Your task to perform on an android device: Go to accessibility settings Image 0: 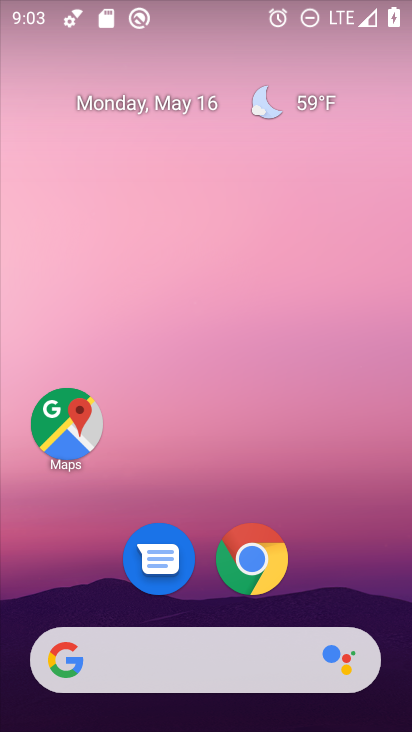
Step 0: drag from (335, 576) to (344, 89)
Your task to perform on an android device: Go to accessibility settings Image 1: 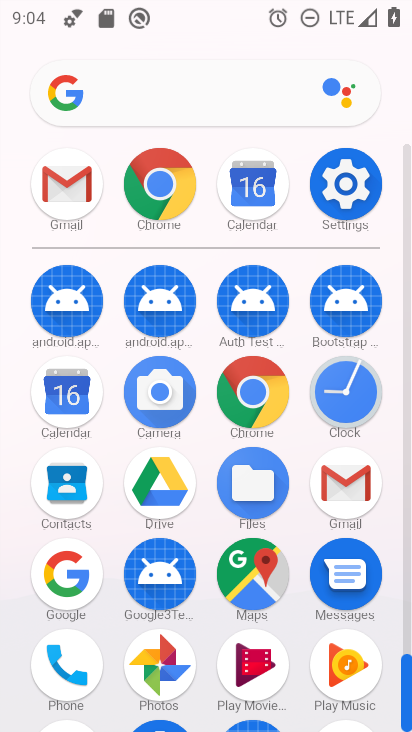
Step 1: click (335, 199)
Your task to perform on an android device: Go to accessibility settings Image 2: 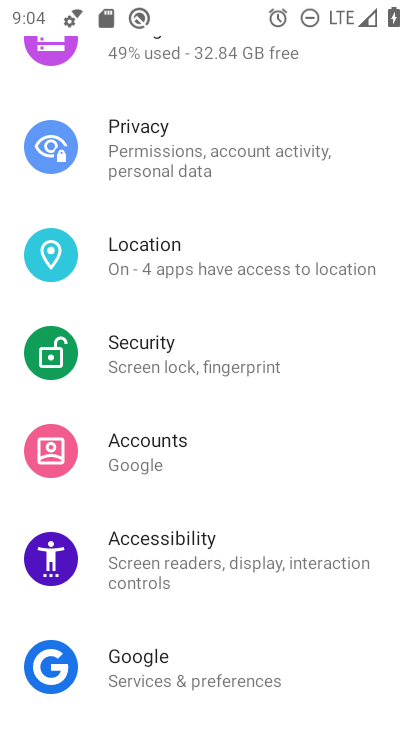
Step 2: click (241, 563)
Your task to perform on an android device: Go to accessibility settings Image 3: 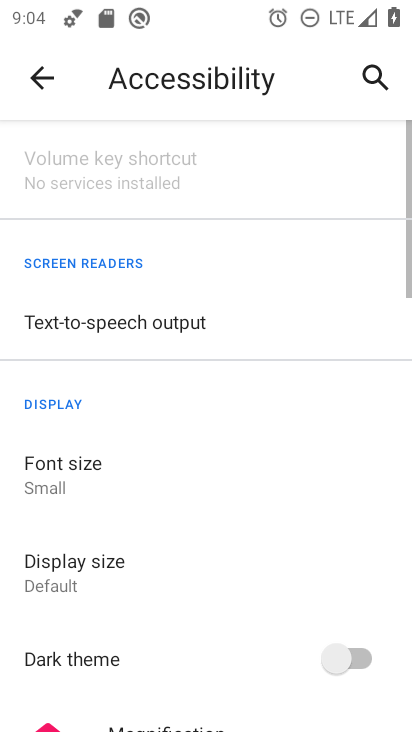
Step 3: task complete